Your task to perform on an android device: Open sound settings Image 0: 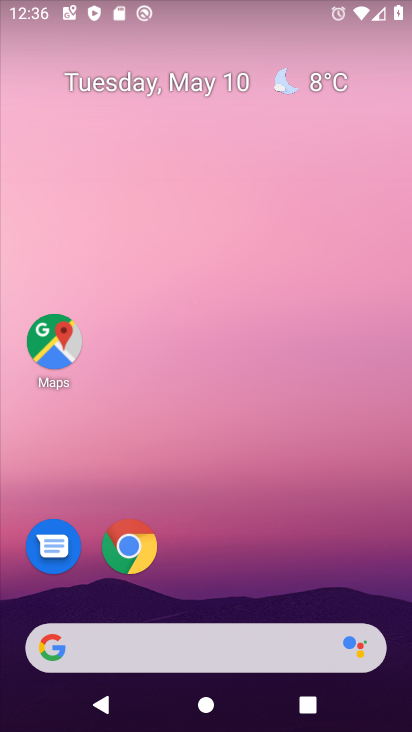
Step 0: drag from (256, 568) to (84, 188)
Your task to perform on an android device: Open sound settings Image 1: 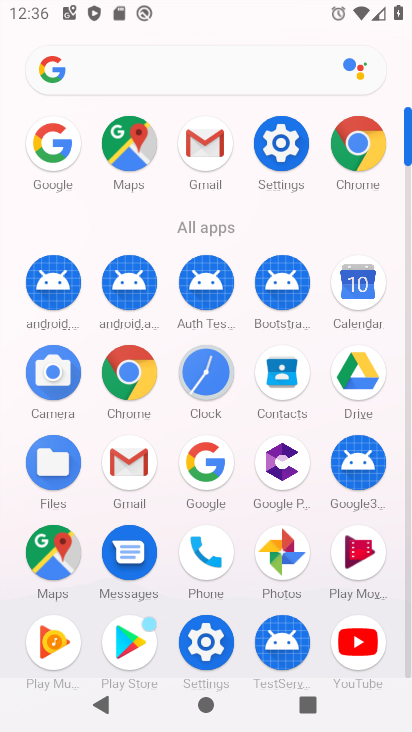
Step 1: click (275, 145)
Your task to perform on an android device: Open sound settings Image 2: 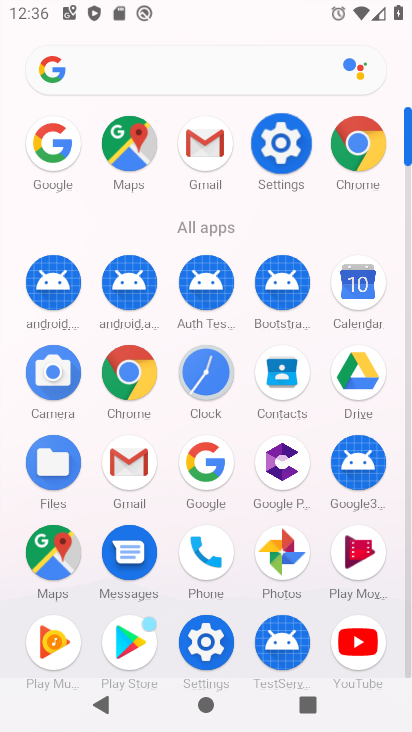
Step 2: click (275, 145)
Your task to perform on an android device: Open sound settings Image 3: 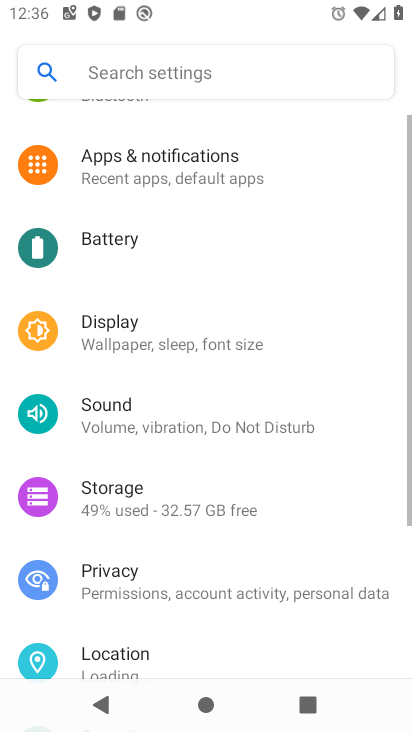
Step 3: click (278, 144)
Your task to perform on an android device: Open sound settings Image 4: 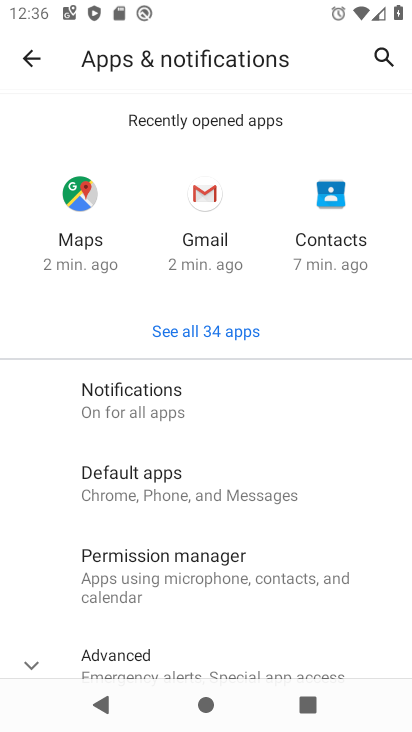
Step 4: click (148, 399)
Your task to perform on an android device: Open sound settings Image 5: 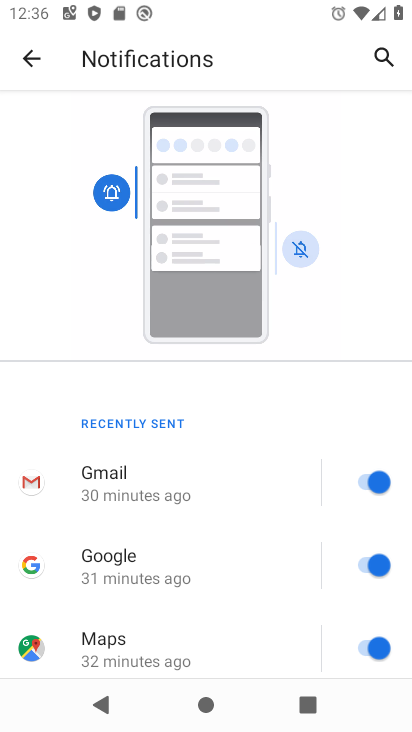
Step 5: drag from (191, 599) to (138, 364)
Your task to perform on an android device: Open sound settings Image 6: 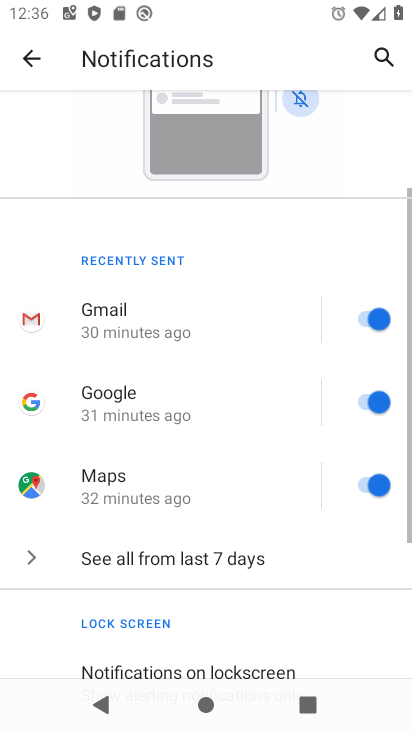
Step 6: drag from (205, 570) to (152, 299)
Your task to perform on an android device: Open sound settings Image 7: 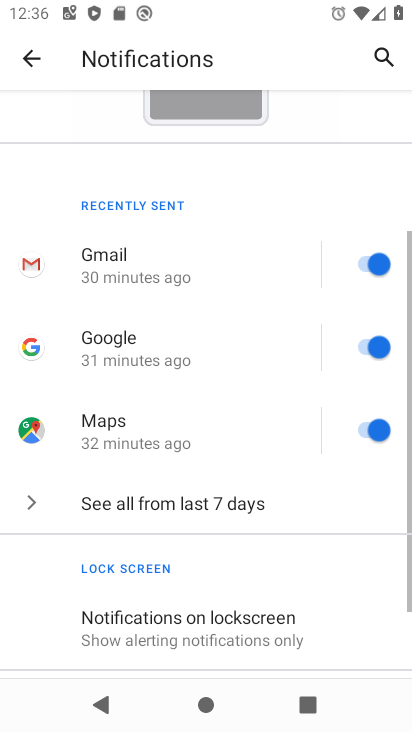
Step 7: drag from (232, 495) to (212, 260)
Your task to perform on an android device: Open sound settings Image 8: 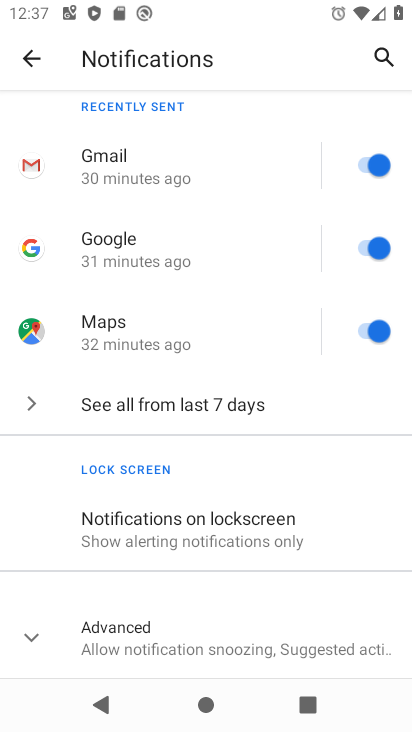
Step 8: drag from (186, 541) to (152, 326)
Your task to perform on an android device: Open sound settings Image 9: 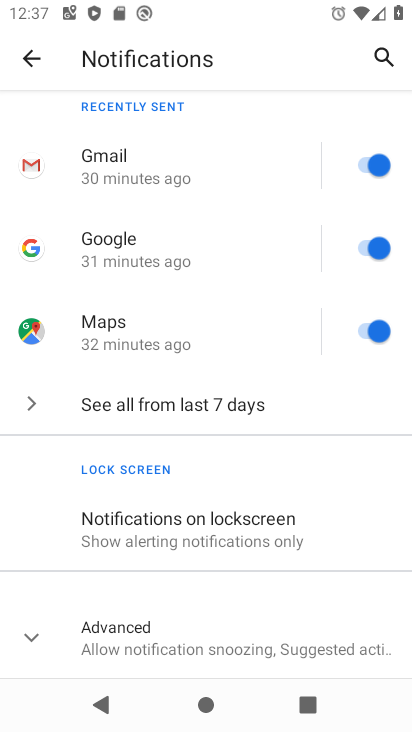
Step 9: click (125, 643)
Your task to perform on an android device: Open sound settings Image 10: 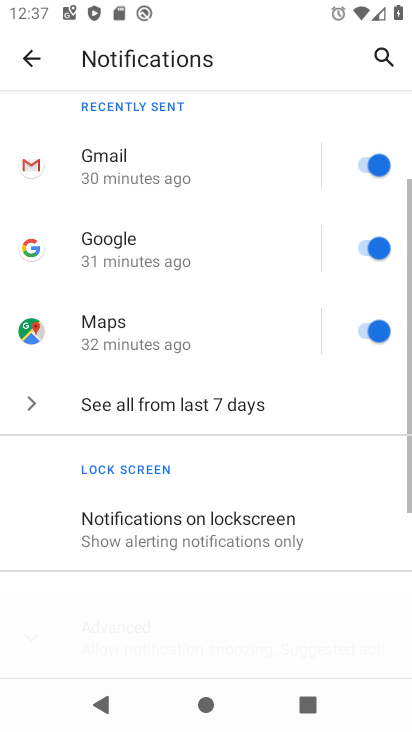
Step 10: click (125, 642)
Your task to perform on an android device: Open sound settings Image 11: 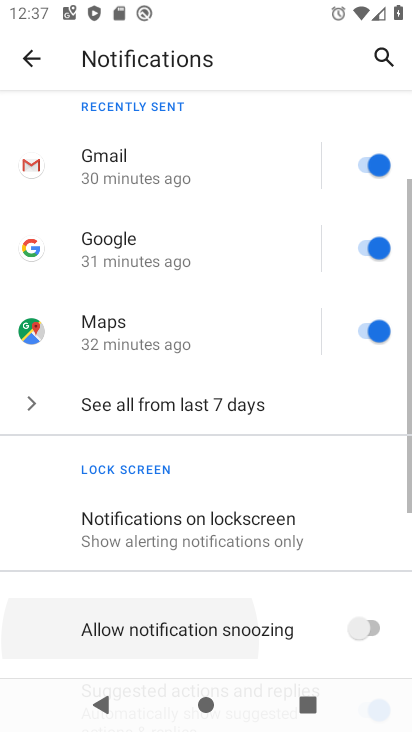
Step 11: click (126, 631)
Your task to perform on an android device: Open sound settings Image 12: 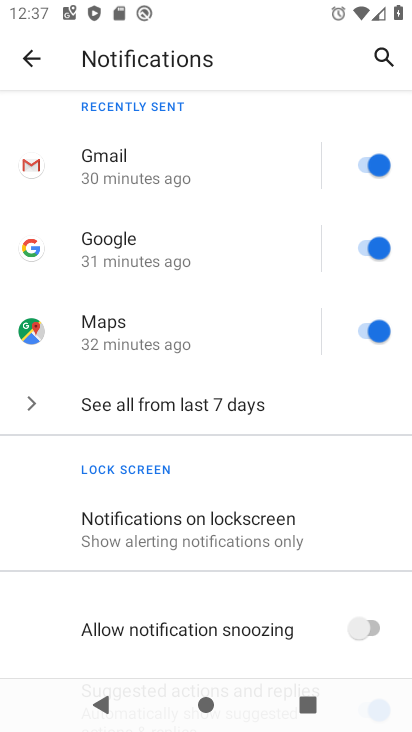
Step 12: drag from (152, 464) to (103, 300)
Your task to perform on an android device: Open sound settings Image 13: 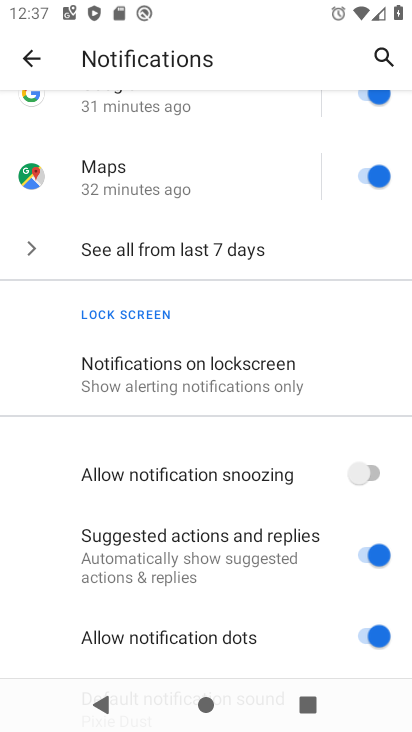
Step 13: drag from (171, 385) to (131, 42)
Your task to perform on an android device: Open sound settings Image 14: 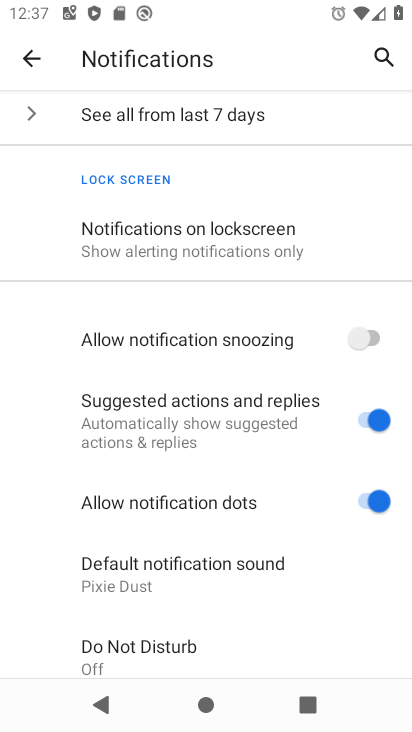
Step 14: click (381, 497)
Your task to perform on an android device: Open sound settings Image 15: 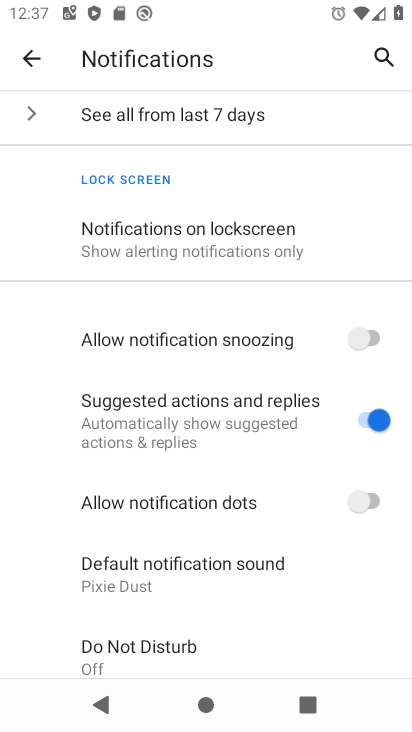
Step 15: task complete